Your task to perform on an android device: Open maps Image 0: 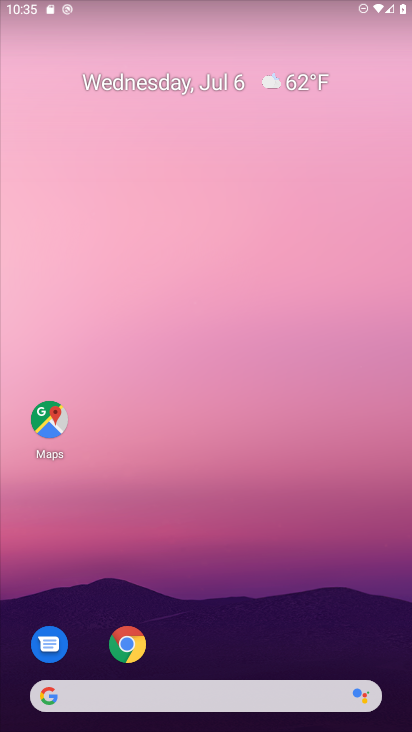
Step 0: press home button
Your task to perform on an android device: Open maps Image 1: 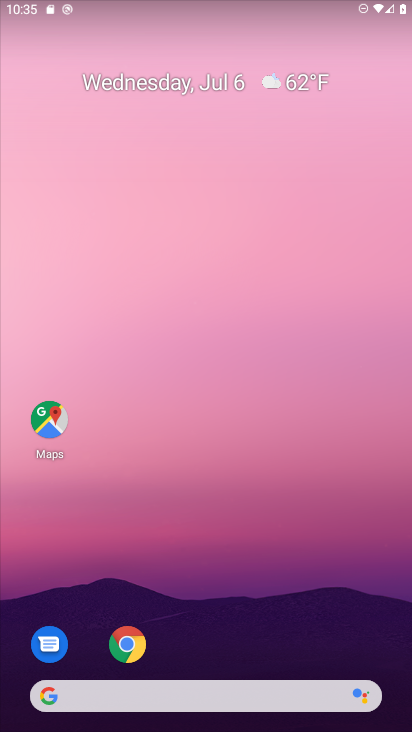
Step 1: click (42, 424)
Your task to perform on an android device: Open maps Image 2: 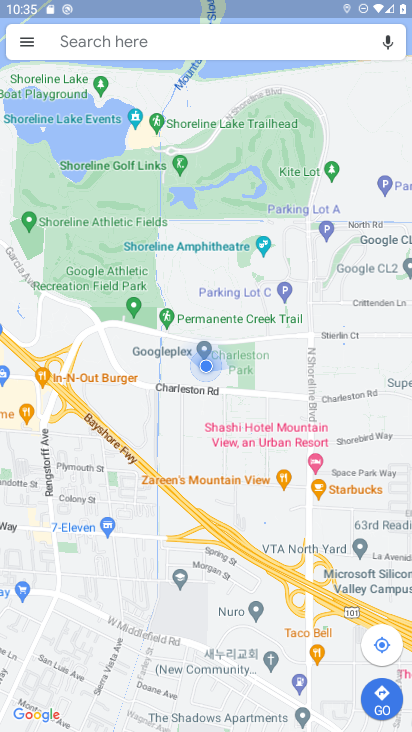
Step 2: task complete